Your task to perform on an android device: clear history in the chrome app Image 0: 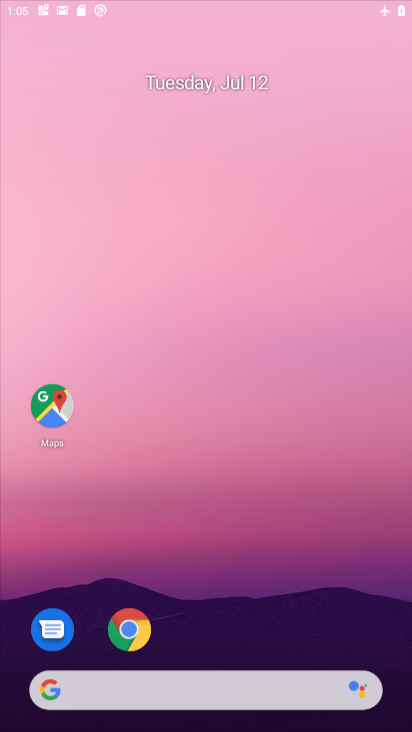
Step 0: drag from (249, 550) to (281, 111)
Your task to perform on an android device: clear history in the chrome app Image 1: 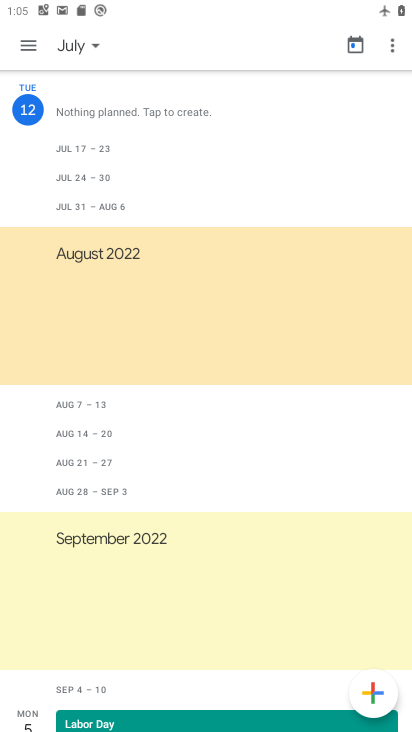
Step 1: press home button
Your task to perform on an android device: clear history in the chrome app Image 2: 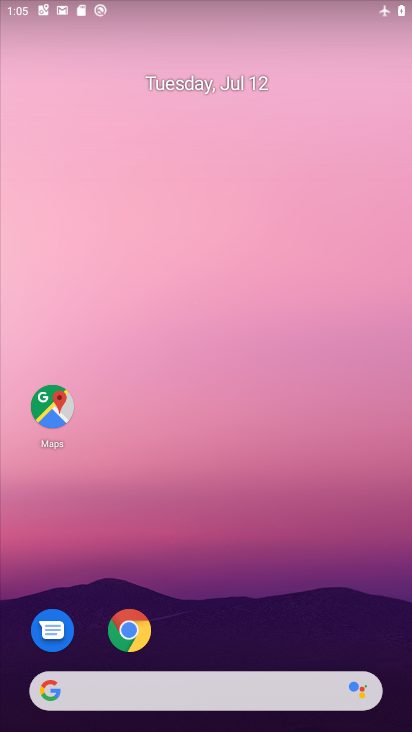
Step 2: drag from (186, 633) to (250, 168)
Your task to perform on an android device: clear history in the chrome app Image 3: 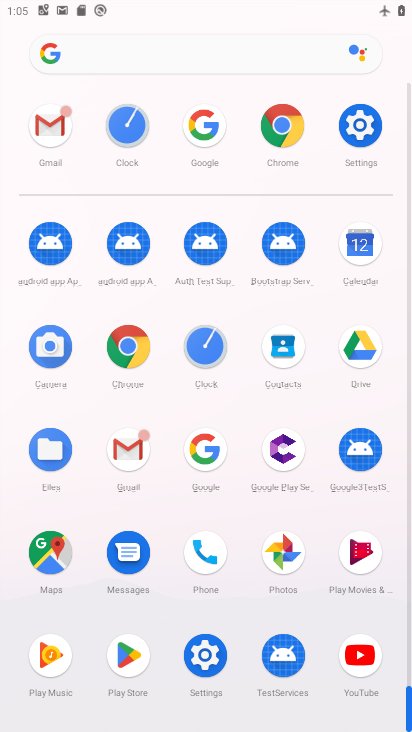
Step 3: click (279, 136)
Your task to perform on an android device: clear history in the chrome app Image 4: 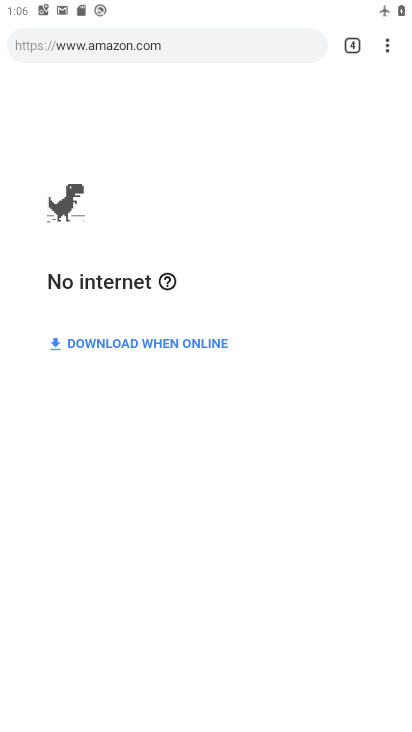
Step 4: click (389, 54)
Your task to perform on an android device: clear history in the chrome app Image 5: 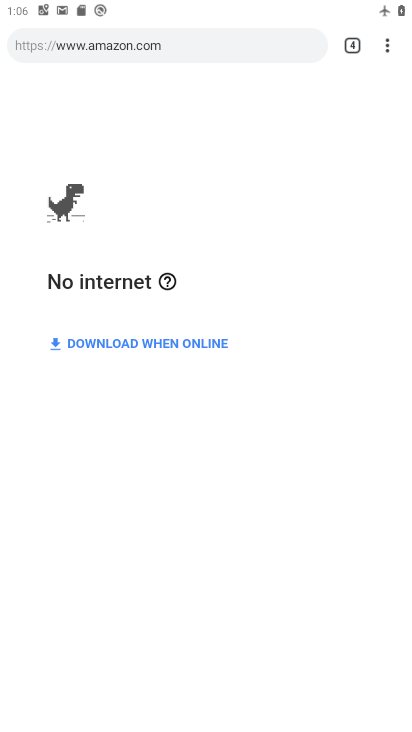
Step 5: click (386, 52)
Your task to perform on an android device: clear history in the chrome app Image 6: 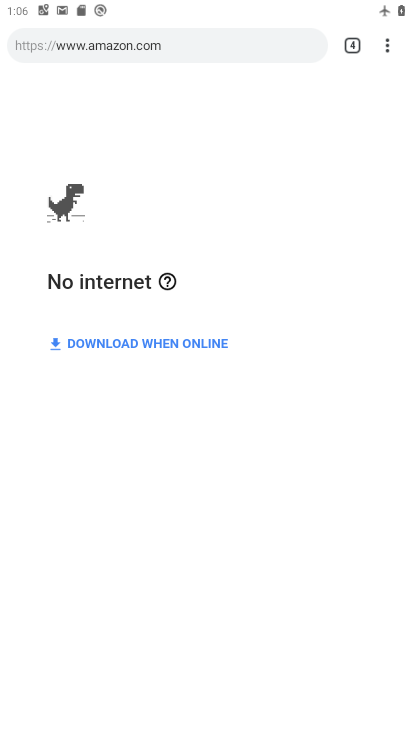
Step 6: click (385, 47)
Your task to perform on an android device: clear history in the chrome app Image 7: 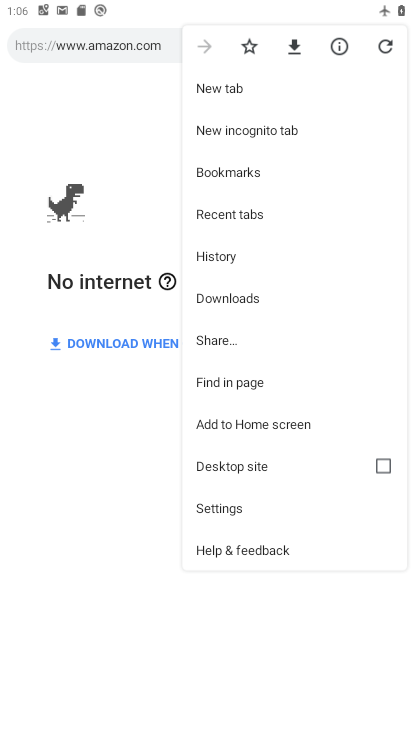
Step 7: click (215, 258)
Your task to perform on an android device: clear history in the chrome app Image 8: 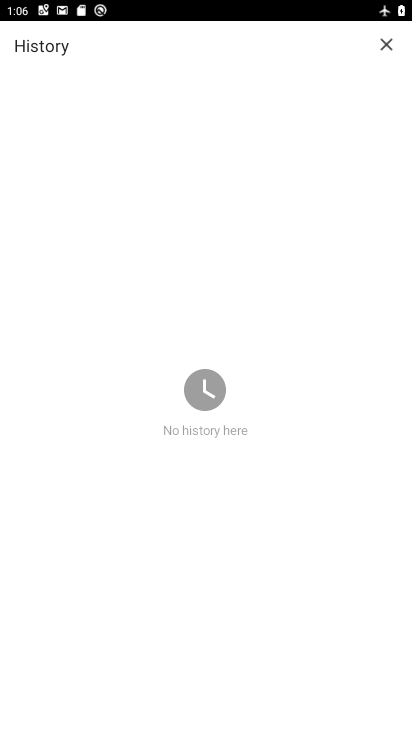
Step 8: task complete